Your task to perform on an android device: uninstall "Google Sheets" Image 0: 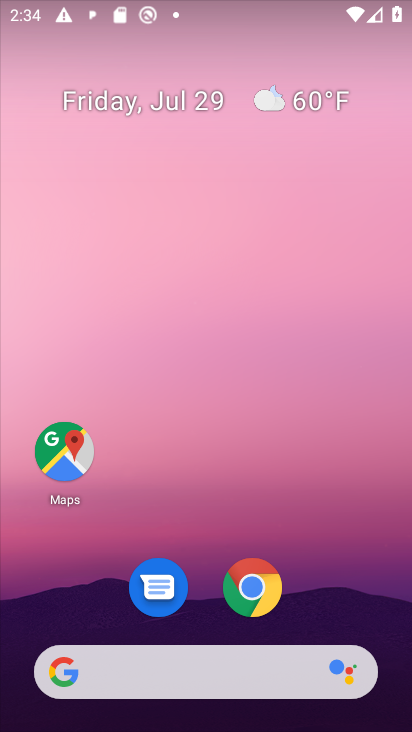
Step 0: drag from (251, 587) to (242, 0)
Your task to perform on an android device: uninstall "Google Sheets" Image 1: 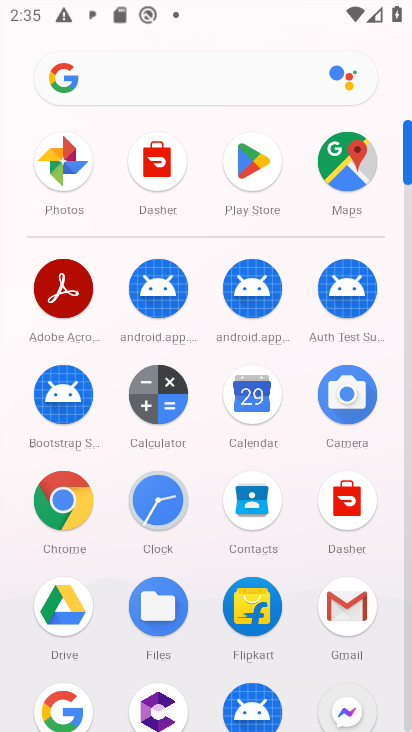
Step 1: click (226, 183)
Your task to perform on an android device: uninstall "Google Sheets" Image 2: 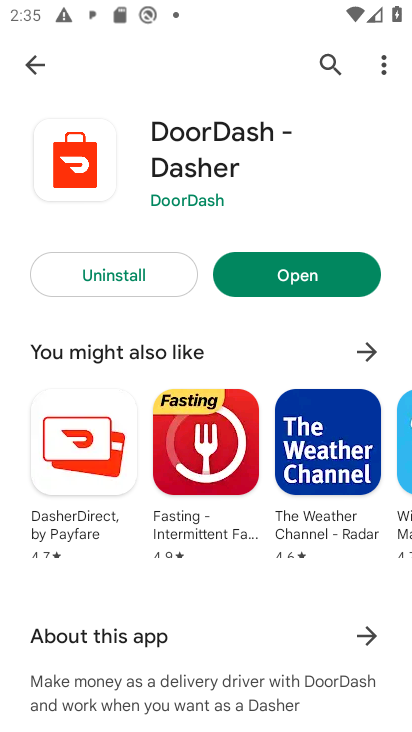
Step 2: click (328, 66)
Your task to perform on an android device: uninstall "Google Sheets" Image 3: 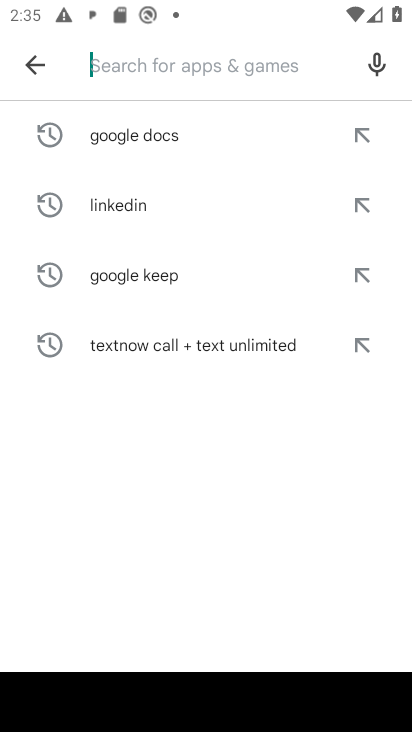
Step 3: type "google Sheets""
Your task to perform on an android device: uninstall "Google Sheets" Image 4: 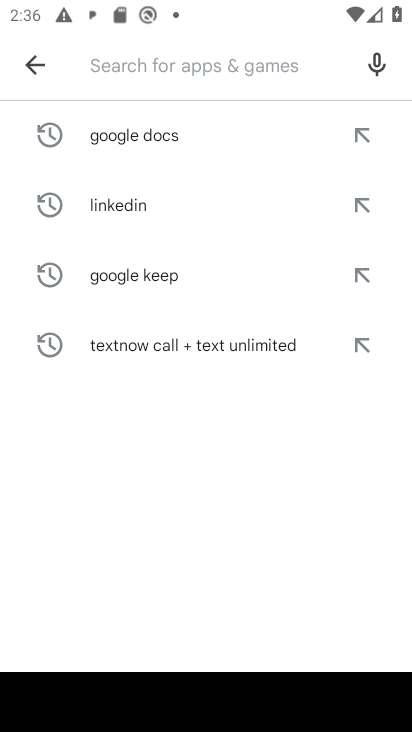
Step 4: type "google Sheets""
Your task to perform on an android device: uninstall "Google Sheets" Image 5: 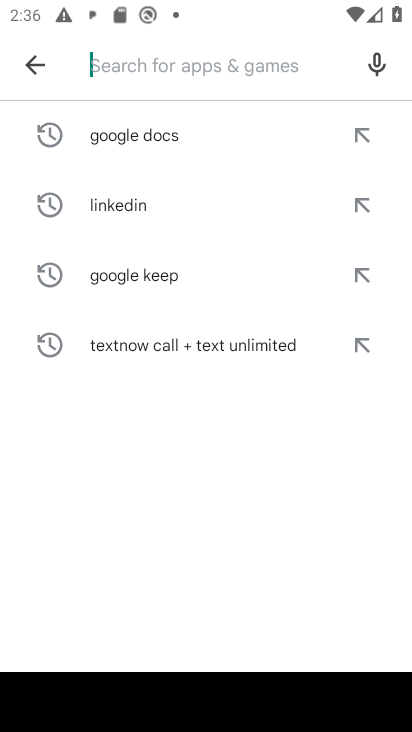
Step 5: type "google sheets"
Your task to perform on an android device: uninstall "Google Sheets" Image 6: 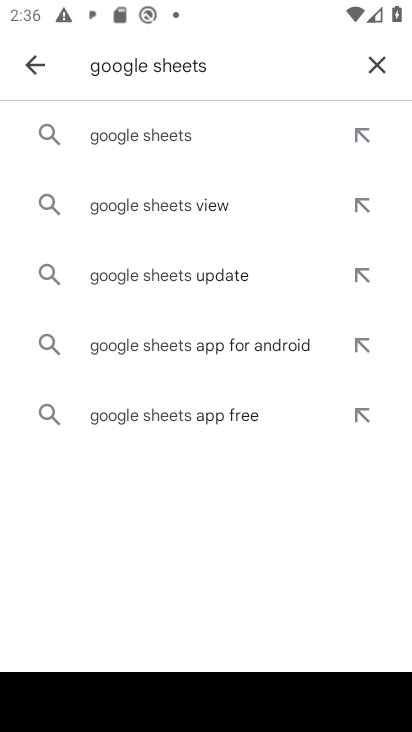
Step 6: click (254, 124)
Your task to perform on an android device: uninstall "Google Sheets" Image 7: 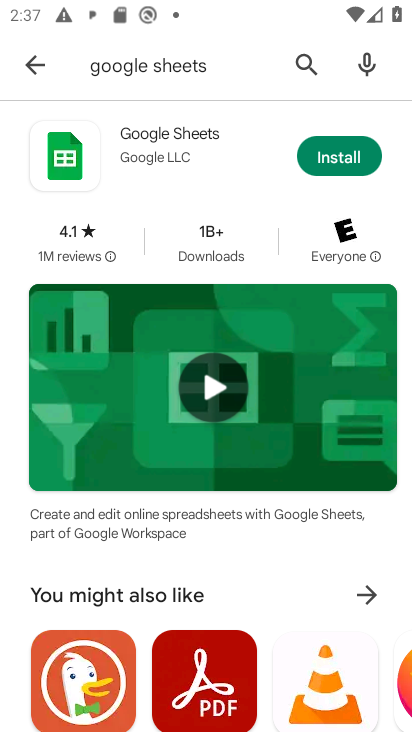
Step 7: task complete